Your task to perform on an android device: clear history in the chrome app Image 0: 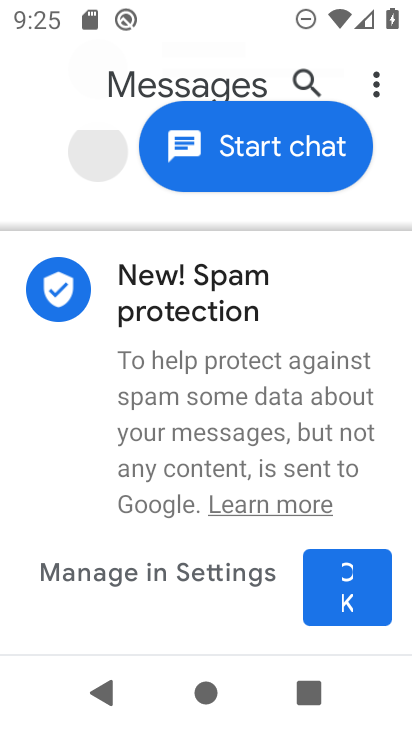
Step 0: press home button
Your task to perform on an android device: clear history in the chrome app Image 1: 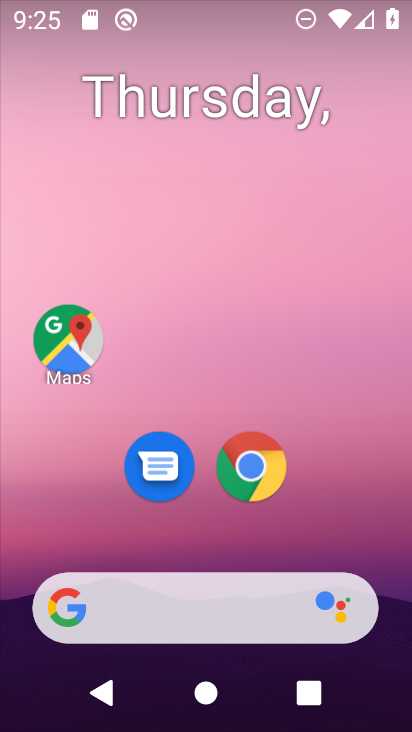
Step 1: drag from (304, 638) to (280, 0)
Your task to perform on an android device: clear history in the chrome app Image 2: 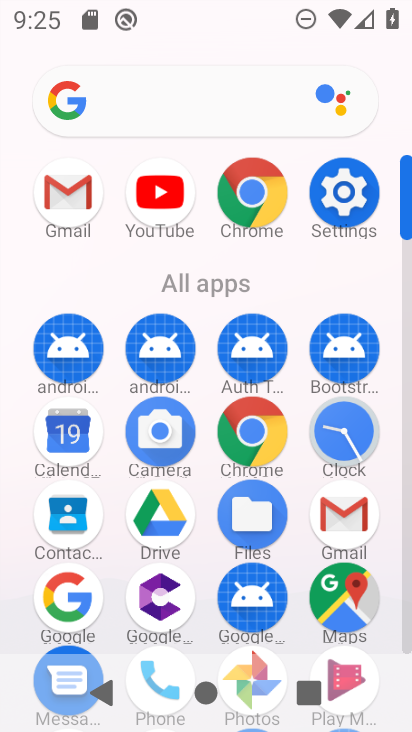
Step 2: click (264, 440)
Your task to perform on an android device: clear history in the chrome app Image 3: 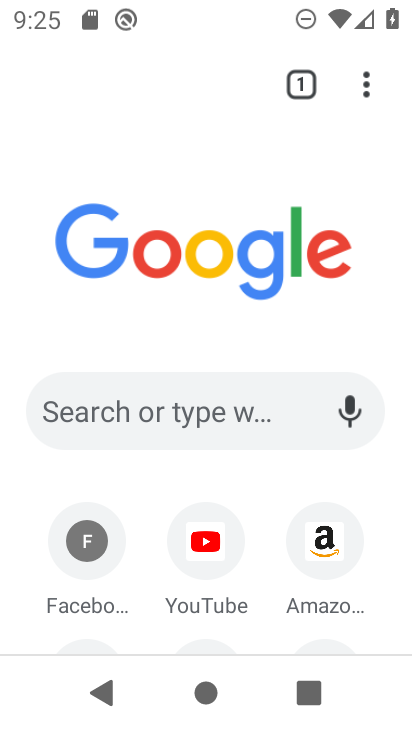
Step 3: task complete